Your task to perform on an android device: check storage Image 0: 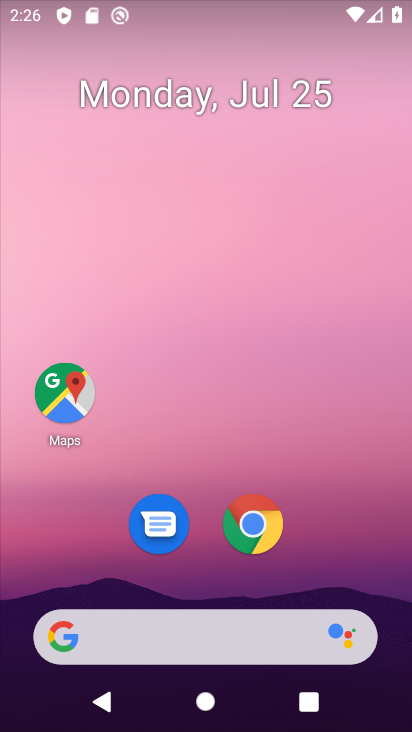
Step 0: drag from (335, 539) to (340, 43)
Your task to perform on an android device: check storage Image 1: 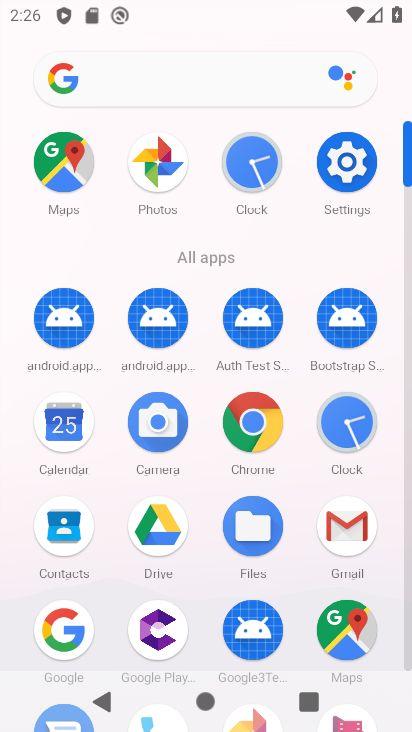
Step 1: click (339, 160)
Your task to perform on an android device: check storage Image 2: 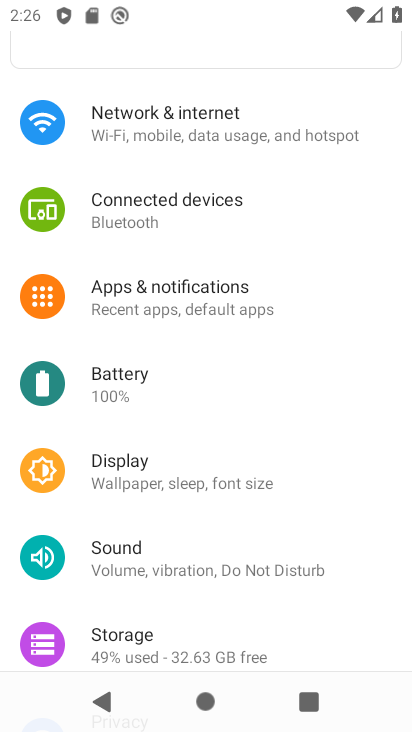
Step 2: click (133, 636)
Your task to perform on an android device: check storage Image 3: 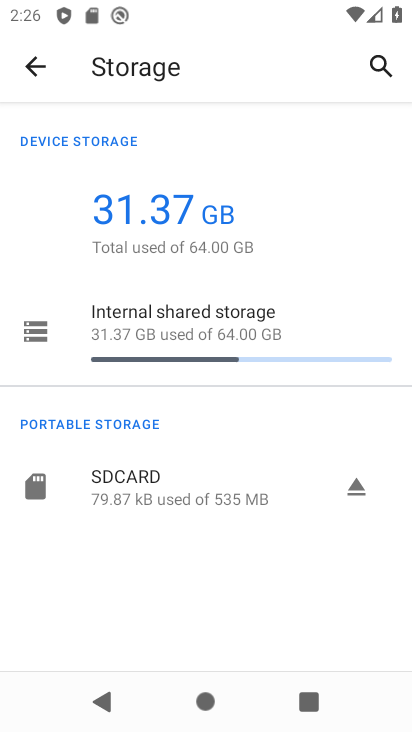
Step 3: task complete